Your task to perform on an android device: turn off translation in the chrome app Image 0: 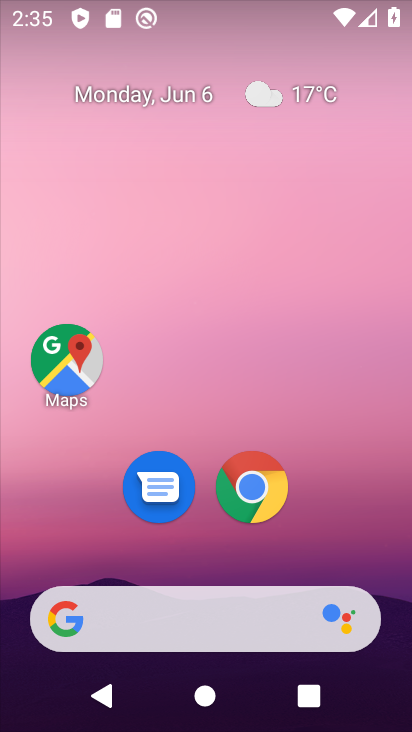
Step 0: click (189, 491)
Your task to perform on an android device: turn off translation in the chrome app Image 1: 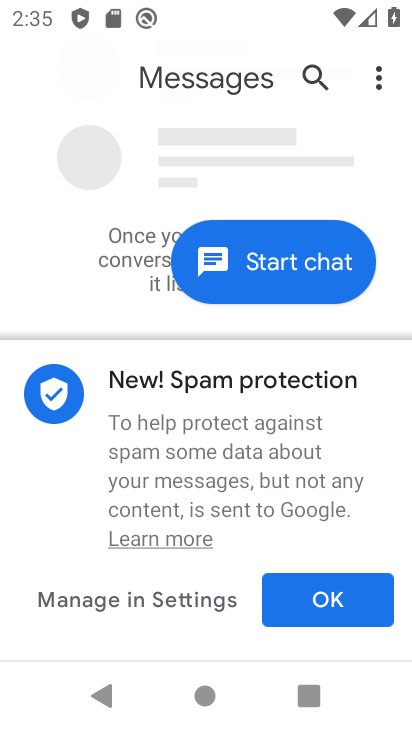
Step 1: press home button
Your task to perform on an android device: turn off translation in the chrome app Image 2: 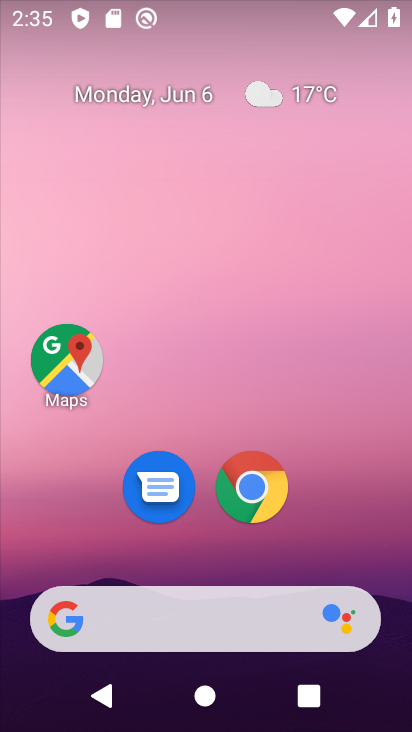
Step 2: click (286, 491)
Your task to perform on an android device: turn off translation in the chrome app Image 3: 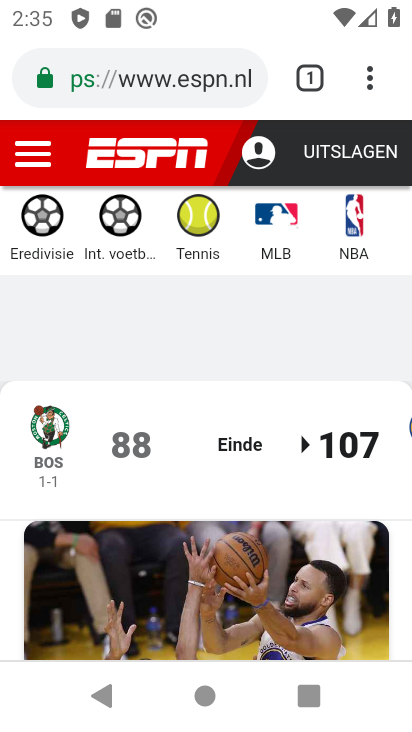
Step 3: drag from (383, 72) to (226, 567)
Your task to perform on an android device: turn off translation in the chrome app Image 4: 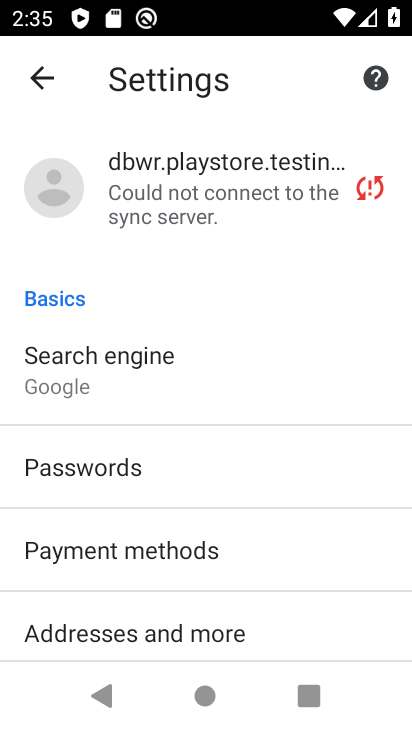
Step 4: drag from (76, 575) to (264, 216)
Your task to perform on an android device: turn off translation in the chrome app Image 5: 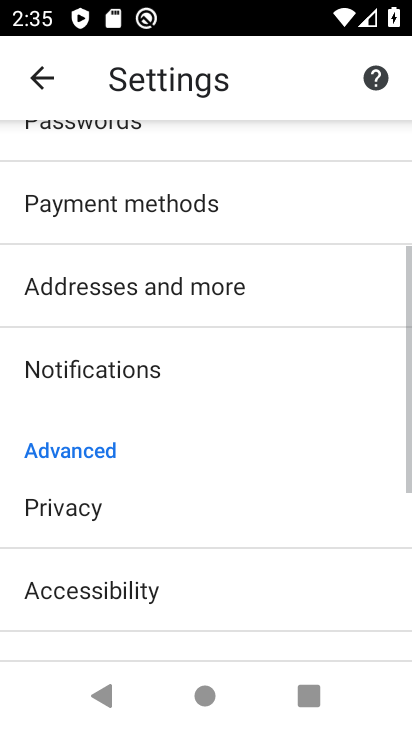
Step 5: drag from (84, 595) to (235, 232)
Your task to perform on an android device: turn off translation in the chrome app Image 6: 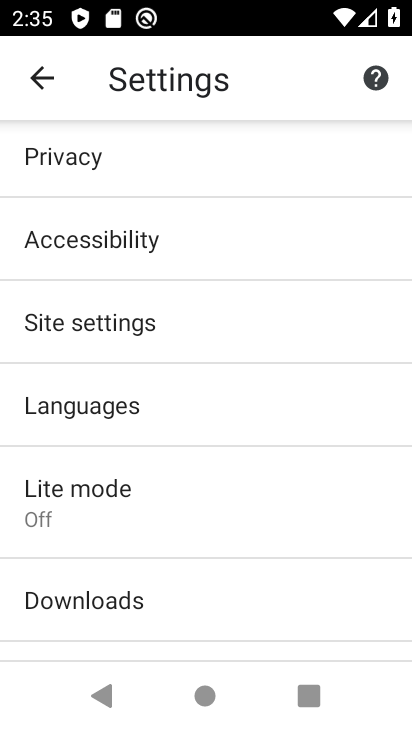
Step 6: click (134, 411)
Your task to perform on an android device: turn off translation in the chrome app Image 7: 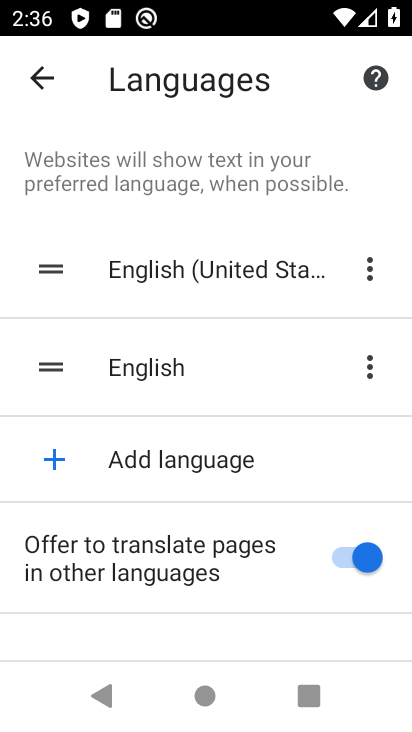
Step 7: click (350, 566)
Your task to perform on an android device: turn off translation in the chrome app Image 8: 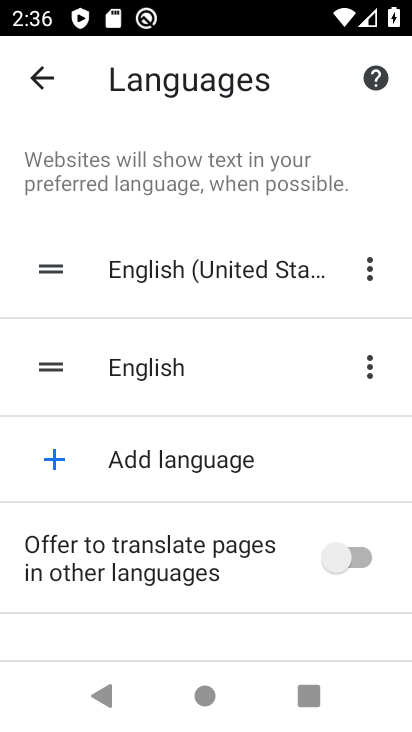
Step 8: task complete